Your task to perform on an android device: toggle improve location accuracy Image 0: 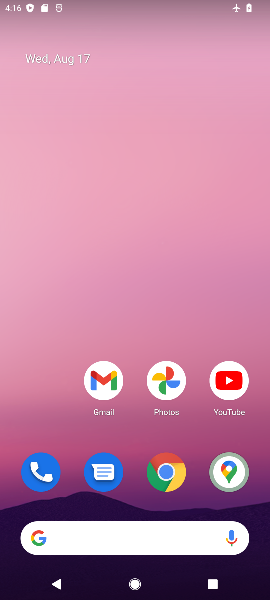
Step 0: drag from (134, 434) to (173, 29)
Your task to perform on an android device: toggle improve location accuracy Image 1: 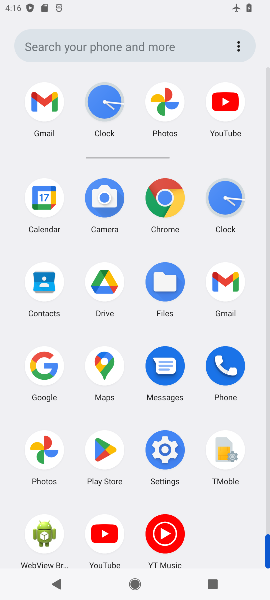
Step 1: click (158, 451)
Your task to perform on an android device: toggle improve location accuracy Image 2: 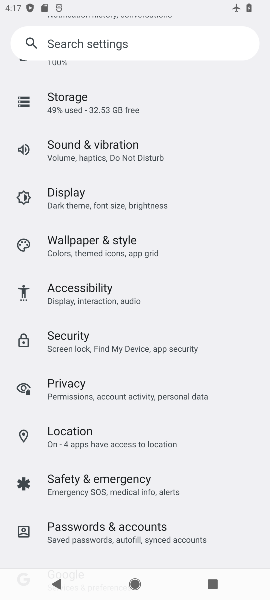
Step 2: click (118, 428)
Your task to perform on an android device: toggle improve location accuracy Image 3: 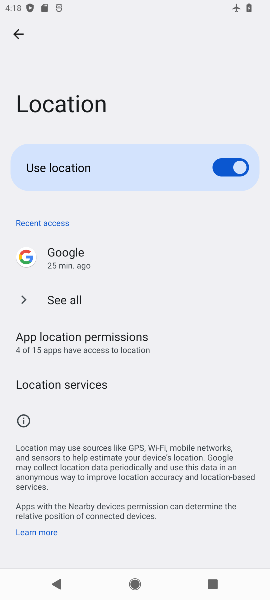
Step 3: click (101, 397)
Your task to perform on an android device: toggle improve location accuracy Image 4: 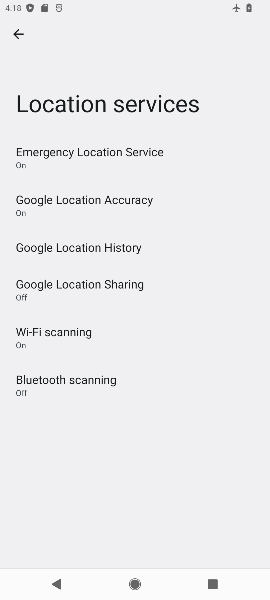
Step 4: click (163, 204)
Your task to perform on an android device: toggle improve location accuracy Image 5: 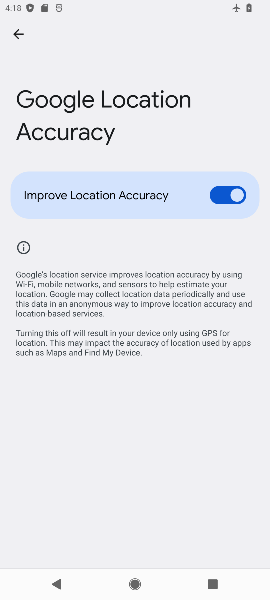
Step 5: click (224, 180)
Your task to perform on an android device: toggle improve location accuracy Image 6: 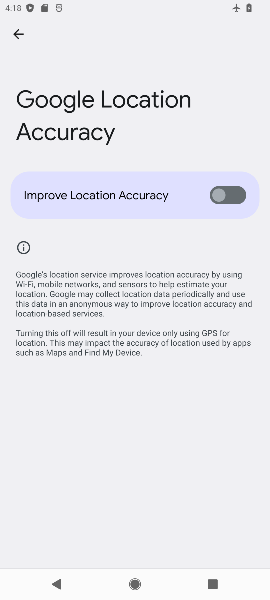
Step 6: task complete